Your task to perform on an android device: Open network settings Image 0: 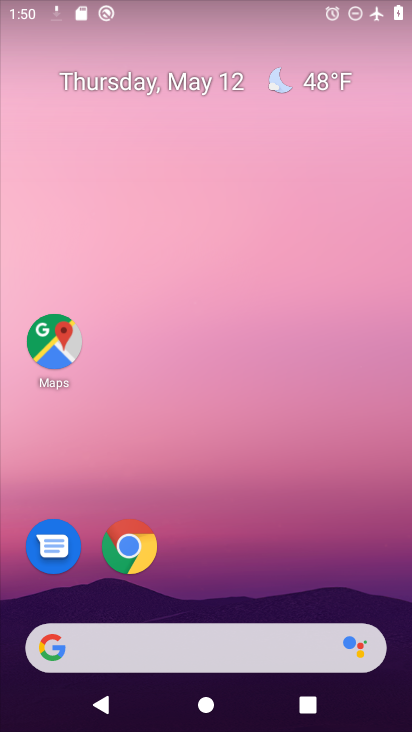
Step 0: drag from (207, 650) to (336, 151)
Your task to perform on an android device: Open network settings Image 1: 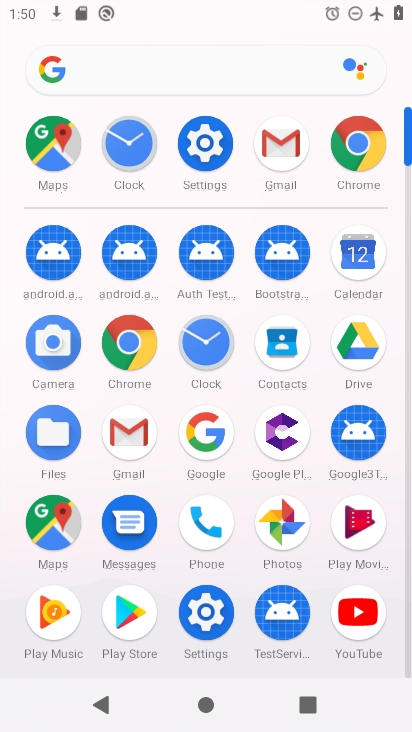
Step 1: click (215, 137)
Your task to perform on an android device: Open network settings Image 2: 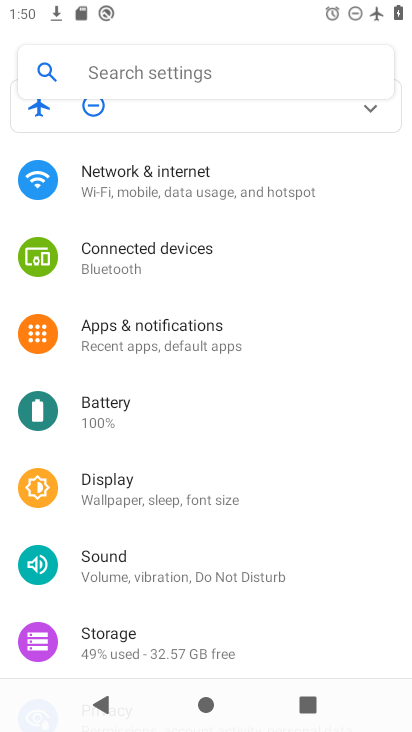
Step 2: click (228, 173)
Your task to perform on an android device: Open network settings Image 3: 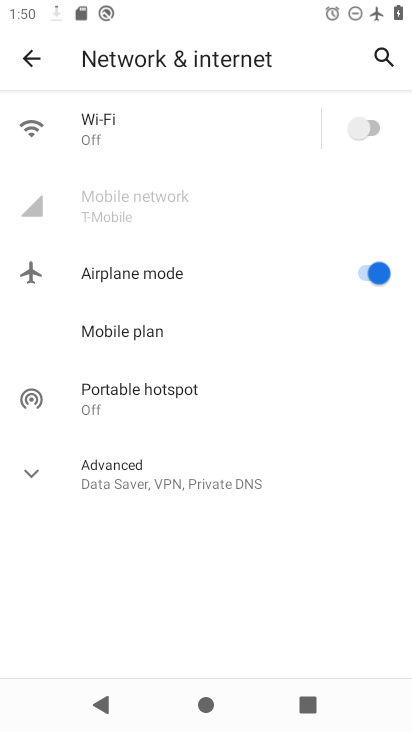
Step 3: task complete